Your task to perform on an android device: Open the web browser Image 0: 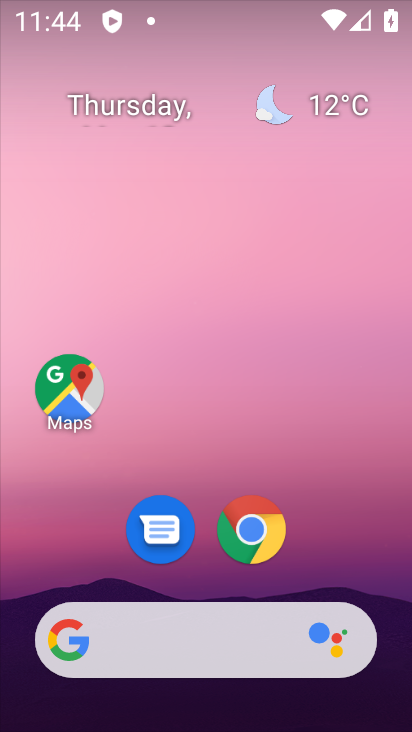
Step 0: click (275, 524)
Your task to perform on an android device: Open the web browser Image 1: 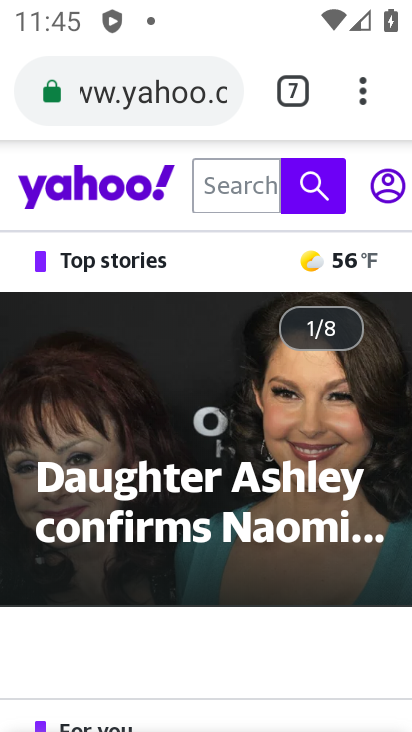
Step 1: task complete